Your task to perform on an android device: change alarm snooze length Image 0: 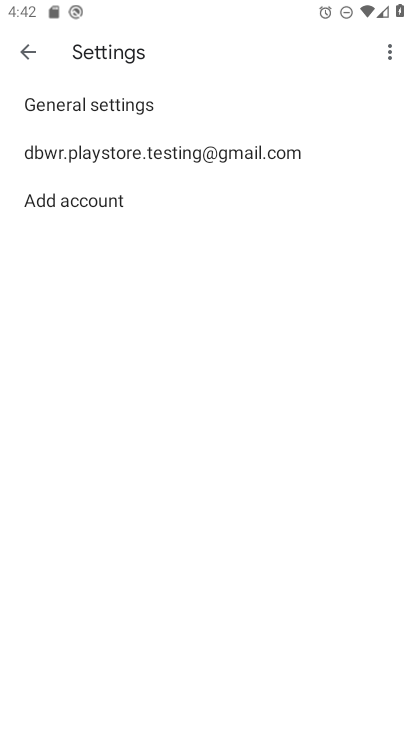
Step 0: press home button
Your task to perform on an android device: change alarm snooze length Image 1: 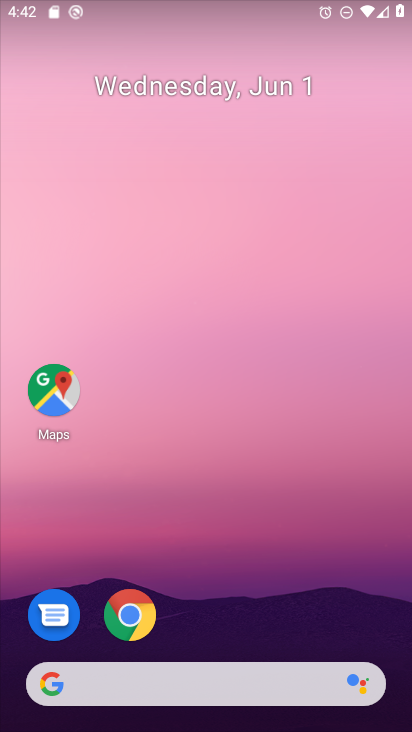
Step 1: drag from (227, 540) to (229, 116)
Your task to perform on an android device: change alarm snooze length Image 2: 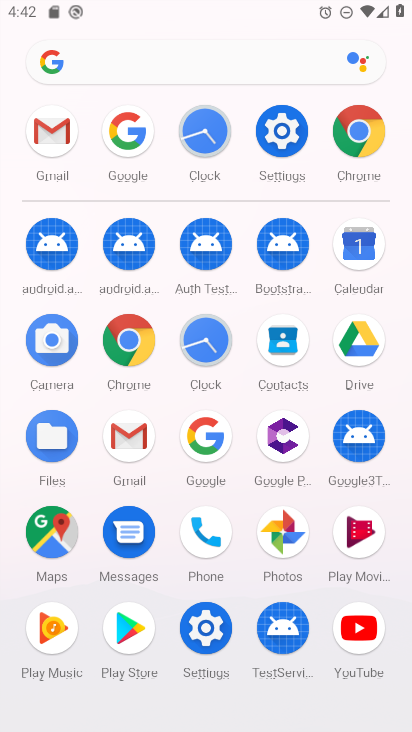
Step 2: click (50, 118)
Your task to perform on an android device: change alarm snooze length Image 3: 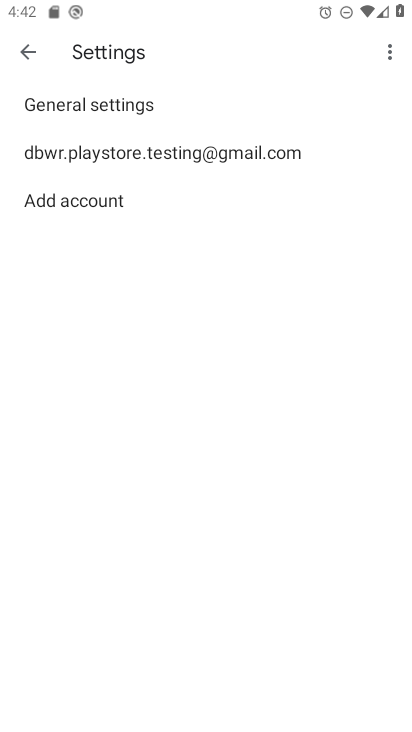
Step 3: press home button
Your task to perform on an android device: change alarm snooze length Image 4: 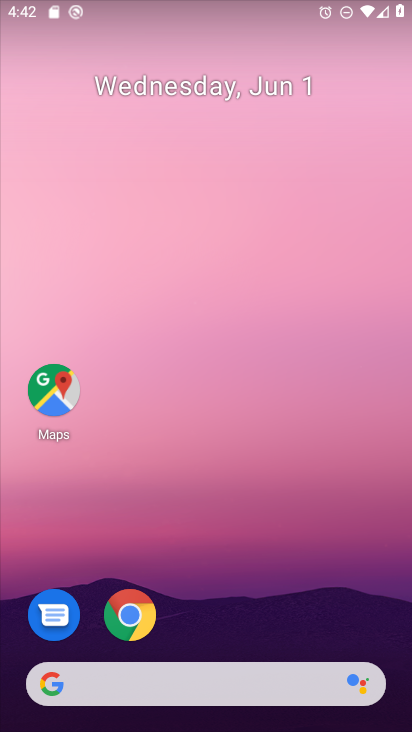
Step 4: drag from (214, 629) to (244, 59)
Your task to perform on an android device: change alarm snooze length Image 5: 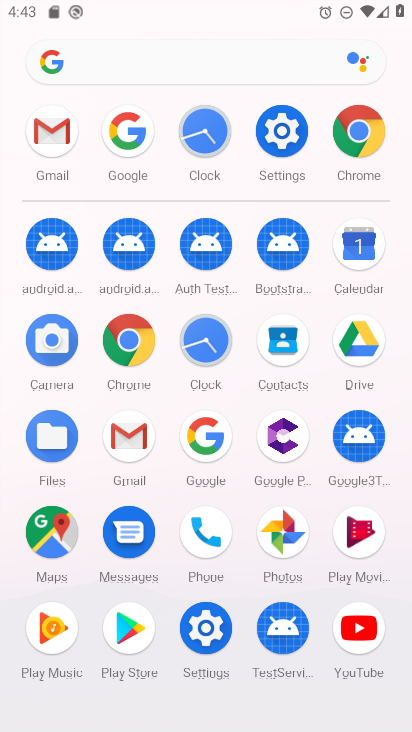
Step 5: click (209, 336)
Your task to perform on an android device: change alarm snooze length Image 6: 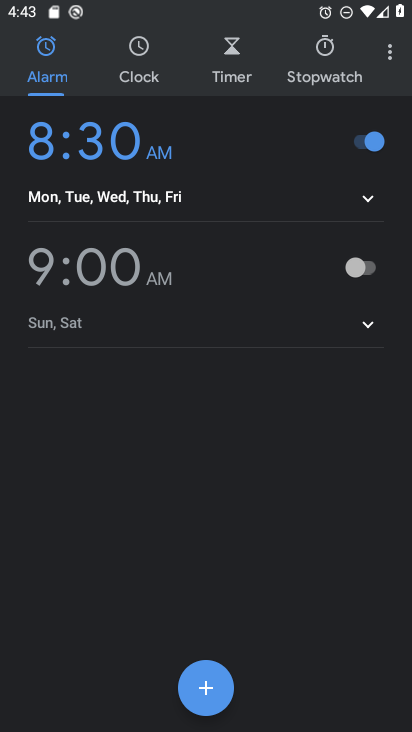
Step 6: click (388, 55)
Your task to perform on an android device: change alarm snooze length Image 7: 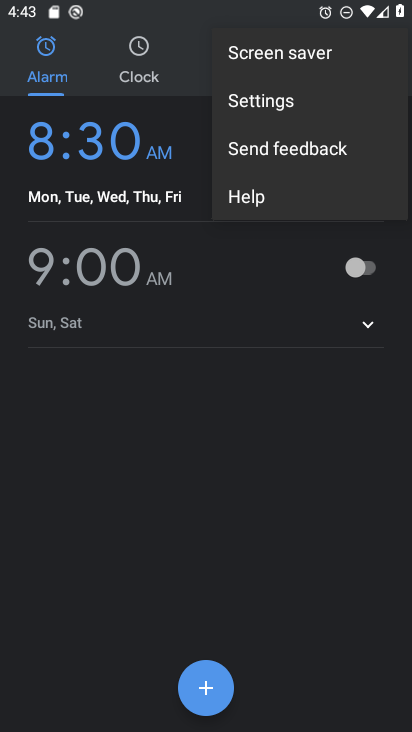
Step 7: click (298, 95)
Your task to perform on an android device: change alarm snooze length Image 8: 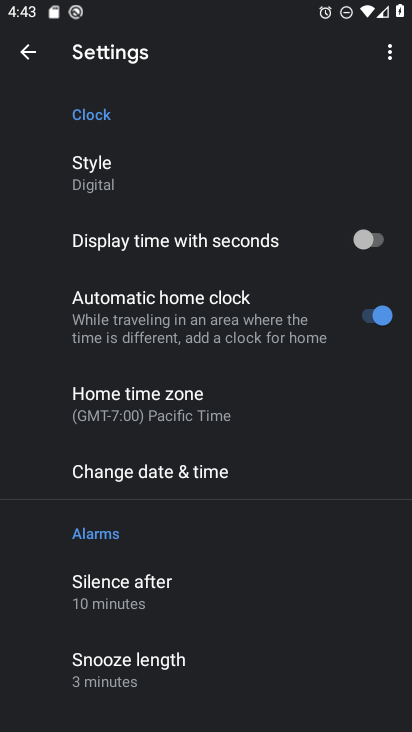
Step 8: click (188, 672)
Your task to perform on an android device: change alarm snooze length Image 9: 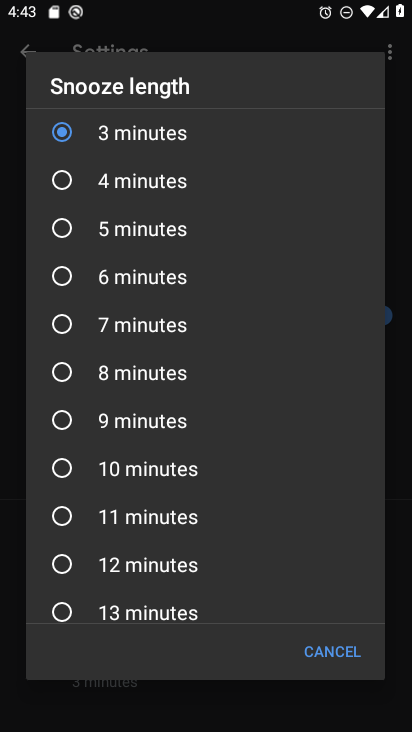
Step 9: click (61, 269)
Your task to perform on an android device: change alarm snooze length Image 10: 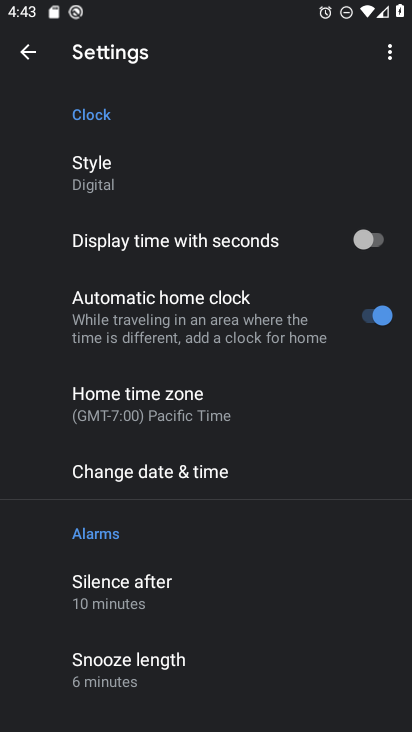
Step 10: task complete